Your task to perform on an android device: uninstall "Speedtest by Ookla" Image 0: 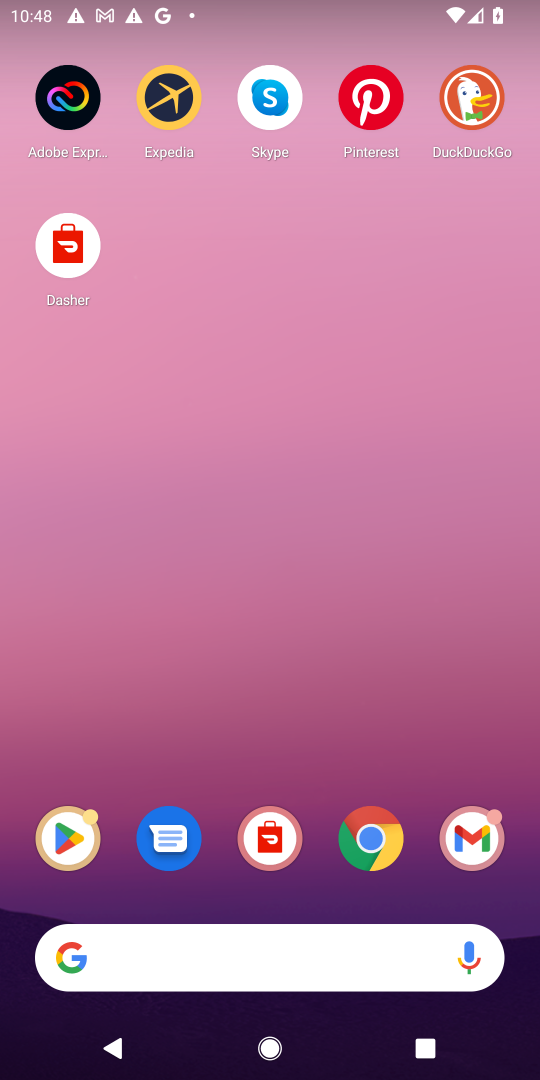
Step 0: press home button
Your task to perform on an android device: uninstall "Speedtest by Ookla" Image 1: 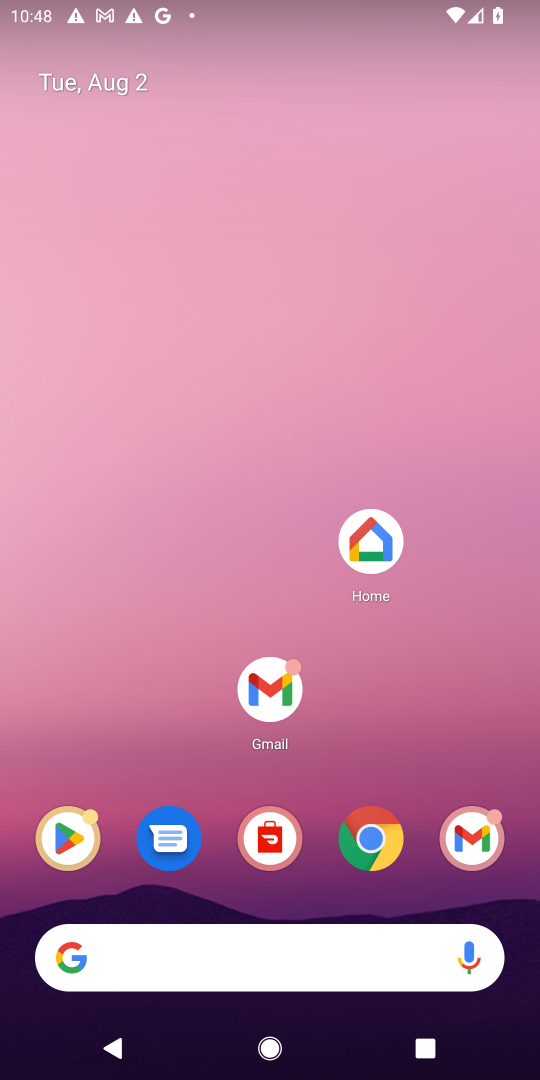
Step 1: drag from (145, 741) to (195, 126)
Your task to perform on an android device: uninstall "Speedtest by Ookla" Image 2: 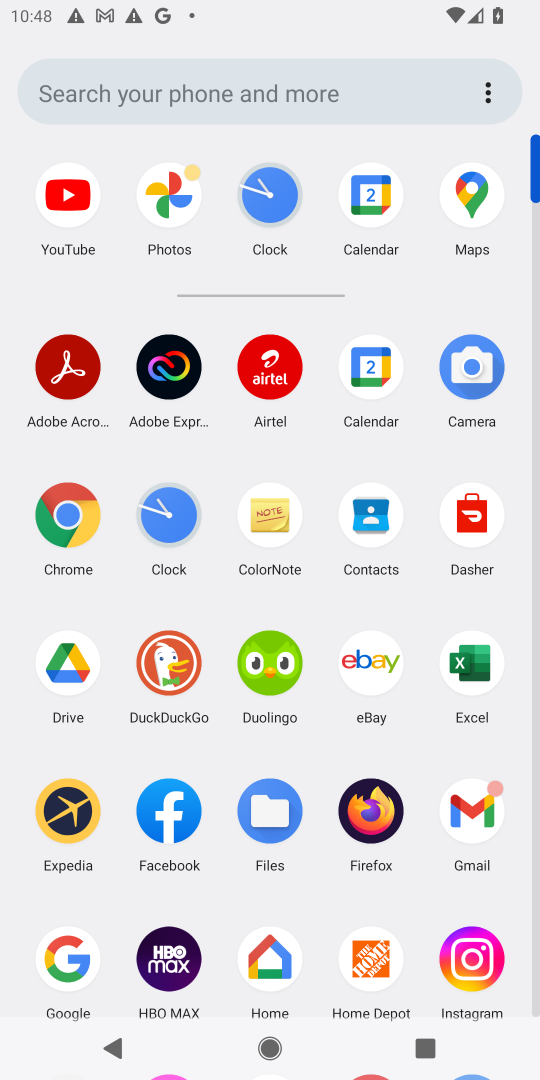
Step 2: drag from (204, 850) to (211, 474)
Your task to perform on an android device: uninstall "Speedtest by Ookla" Image 3: 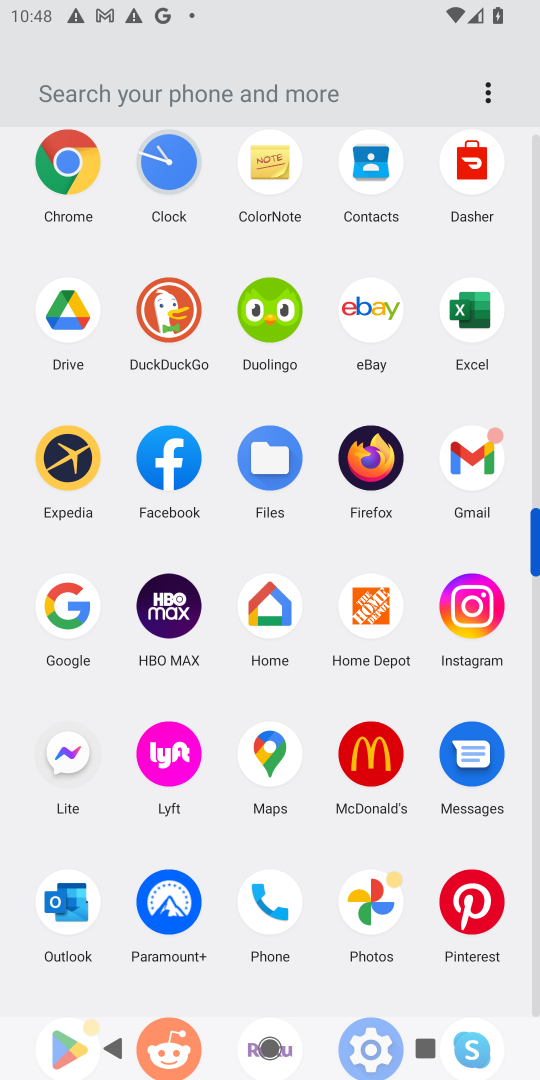
Step 3: drag from (215, 855) to (213, 593)
Your task to perform on an android device: uninstall "Speedtest by Ookla" Image 4: 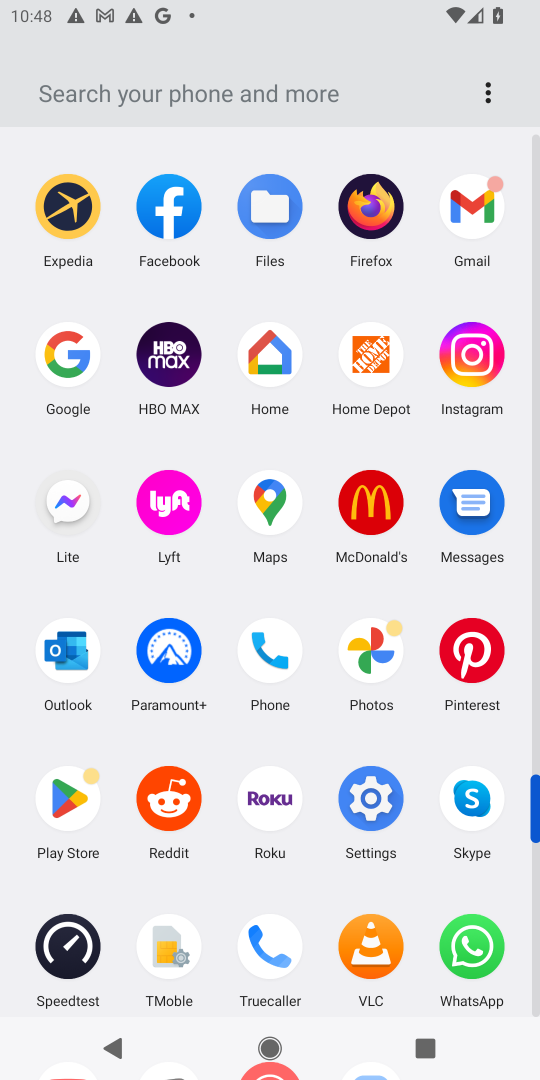
Step 4: click (83, 802)
Your task to perform on an android device: uninstall "Speedtest by Ookla" Image 5: 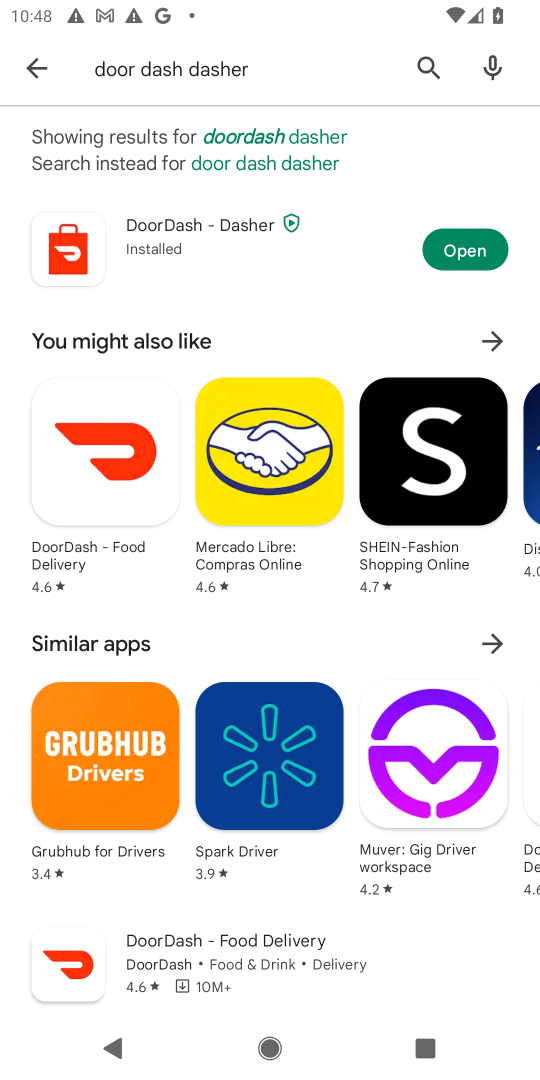
Step 5: click (434, 59)
Your task to perform on an android device: uninstall "Speedtest by Ookla" Image 6: 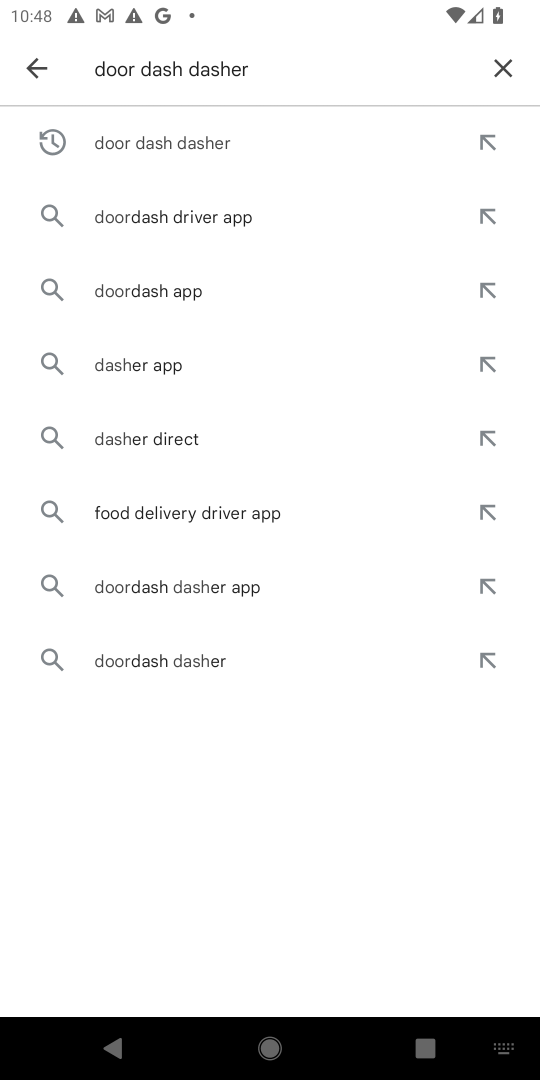
Step 6: click (518, 58)
Your task to perform on an android device: uninstall "Speedtest by Ookla" Image 7: 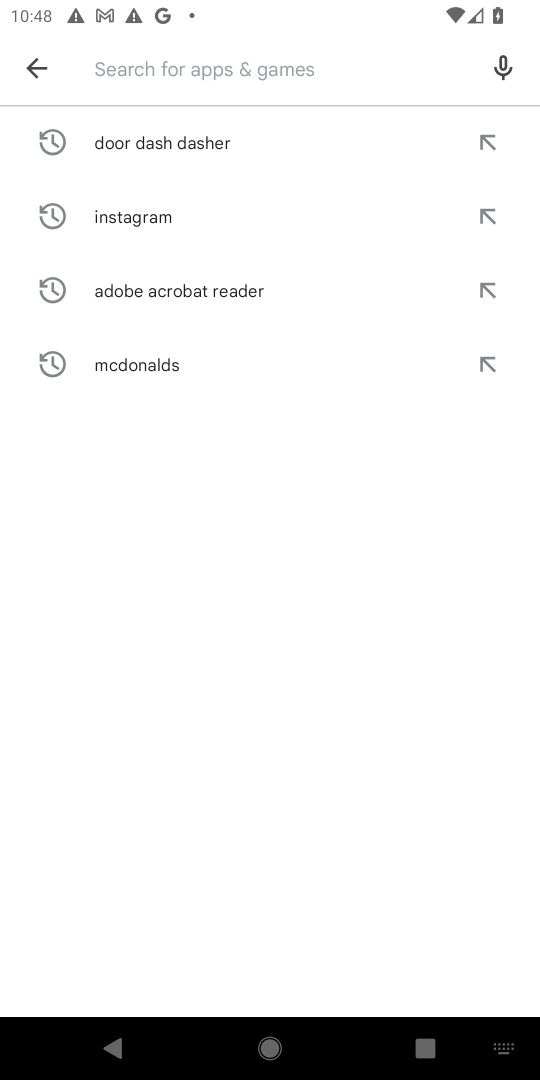
Step 7: click (374, 70)
Your task to perform on an android device: uninstall "Speedtest by Ookla" Image 8: 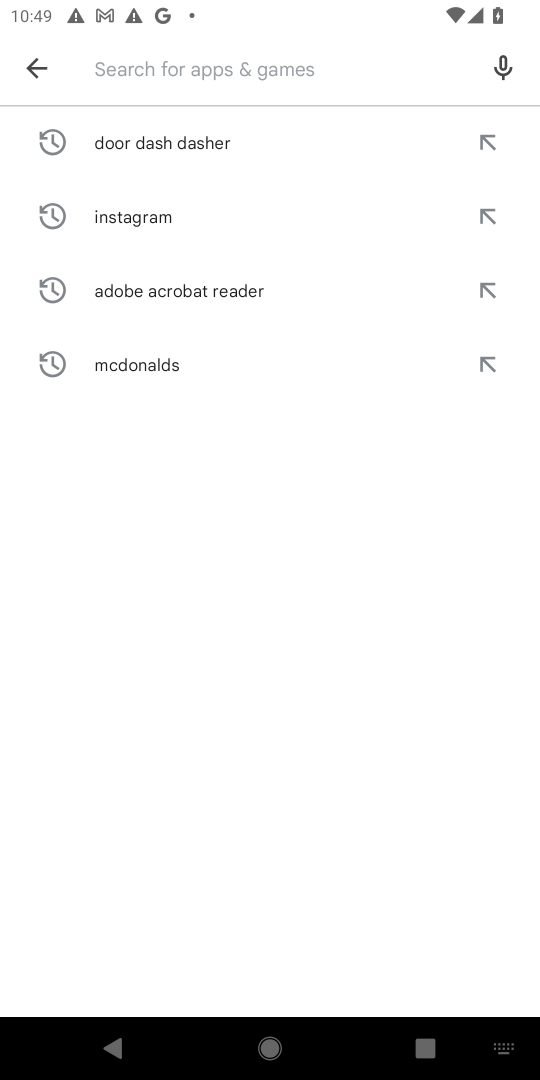
Step 8: type "speadest by ookla"
Your task to perform on an android device: uninstall "Speedtest by Ookla" Image 9: 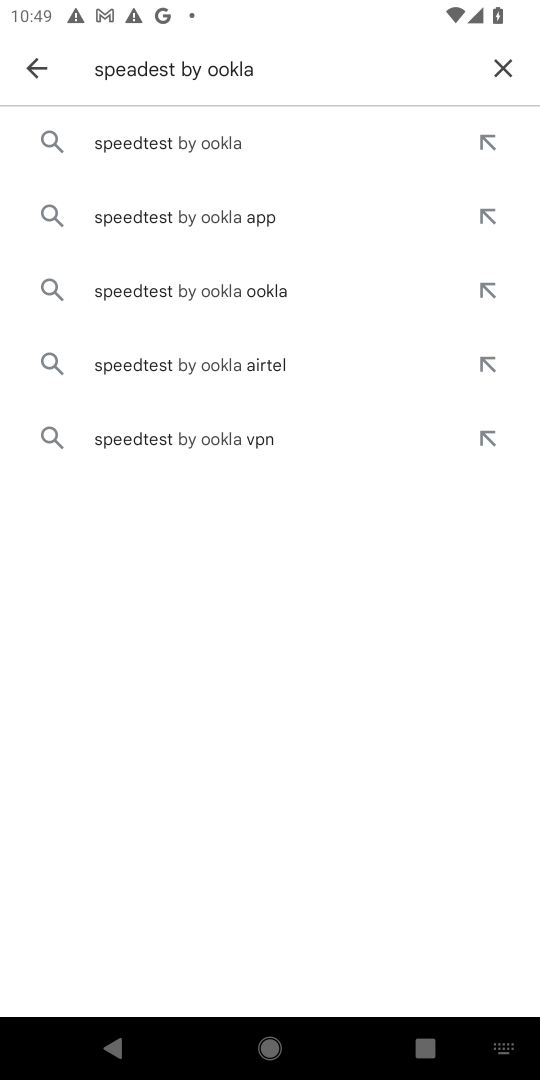
Step 9: click (234, 141)
Your task to perform on an android device: uninstall "Speedtest by Ookla" Image 10: 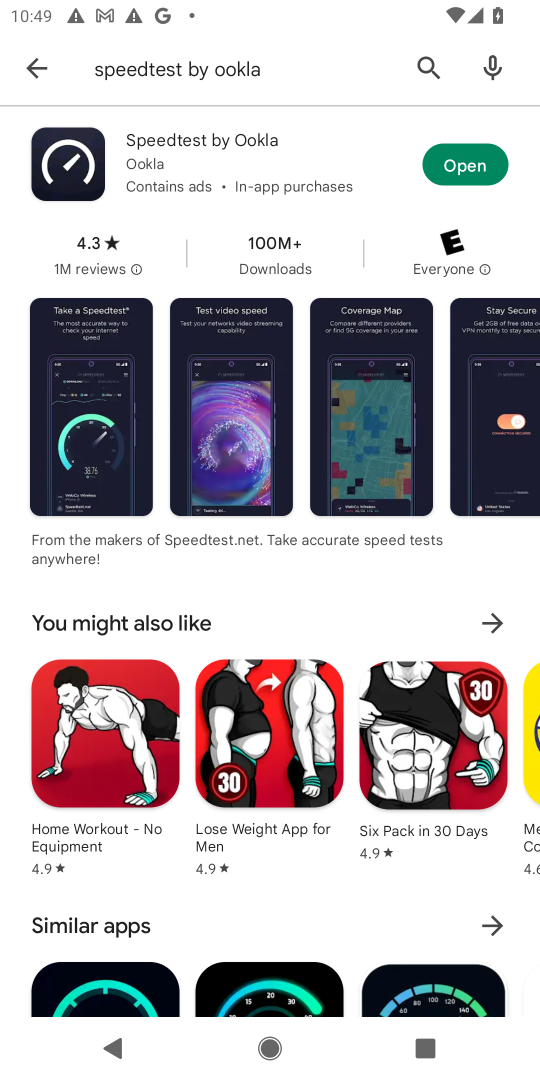
Step 10: task complete